Your task to perform on an android device: Go to Google maps Image 0: 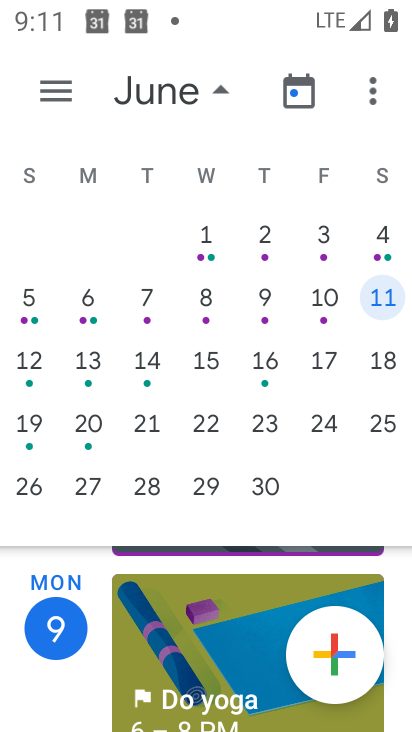
Step 0: press home button
Your task to perform on an android device: Go to Google maps Image 1: 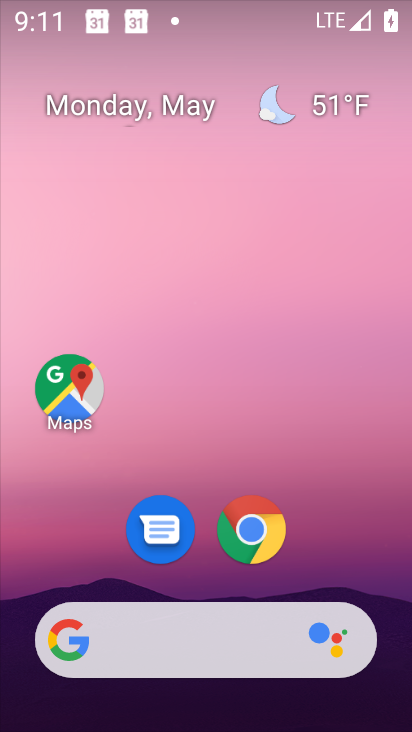
Step 1: click (49, 389)
Your task to perform on an android device: Go to Google maps Image 2: 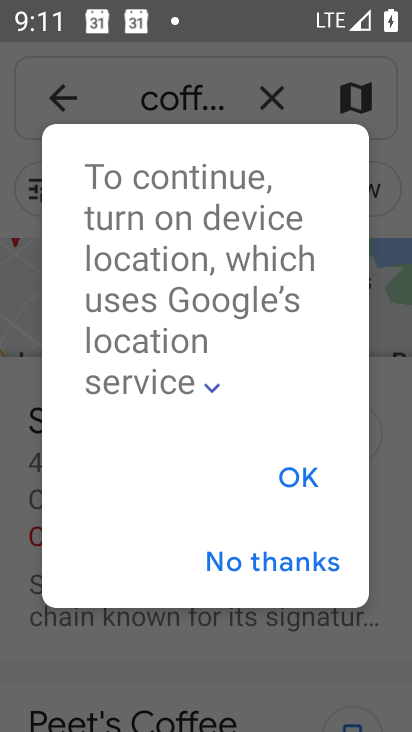
Step 2: click (309, 474)
Your task to perform on an android device: Go to Google maps Image 3: 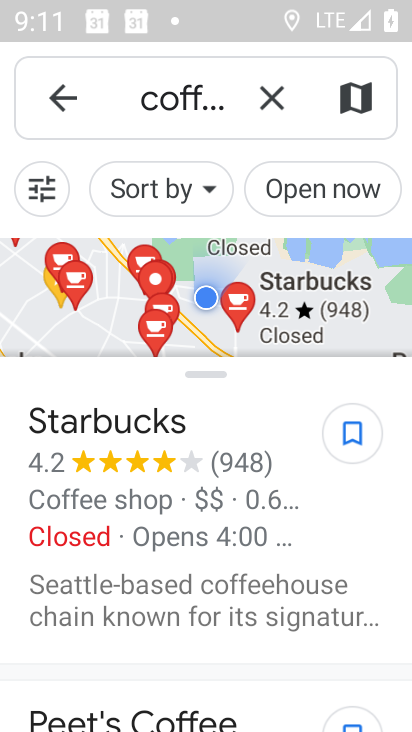
Step 3: task complete